Your task to perform on an android device: Go to Reddit.com Image 0: 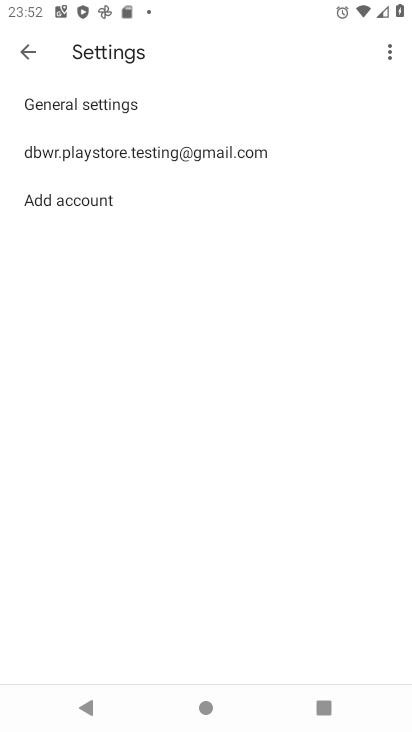
Step 0: press home button
Your task to perform on an android device: Go to Reddit.com Image 1: 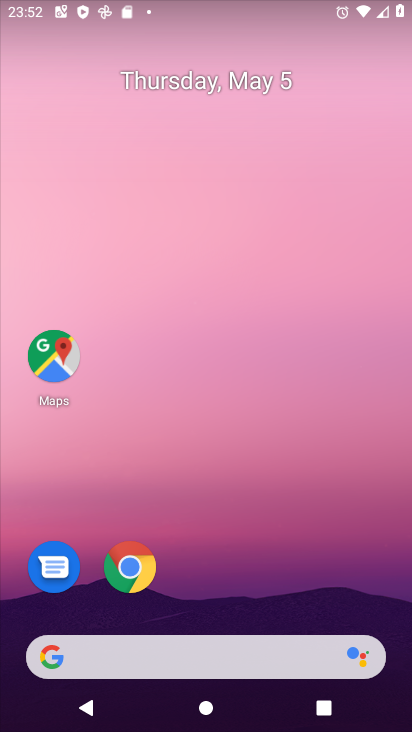
Step 1: click (142, 570)
Your task to perform on an android device: Go to Reddit.com Image 2: 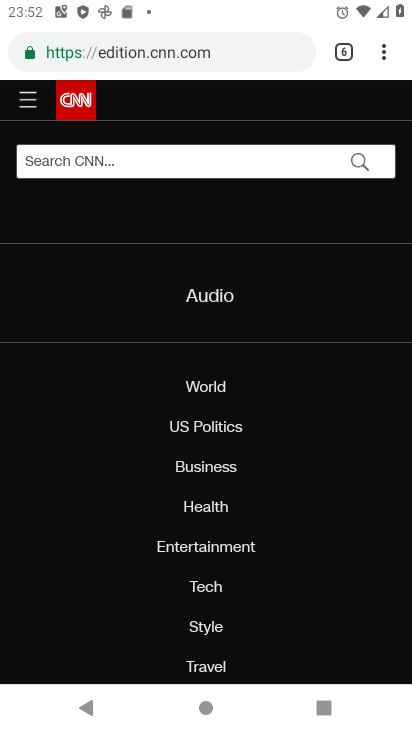
Step 2: click (347, 51)
Your task to perform on an android device: Go to Reddit.com Image 3: 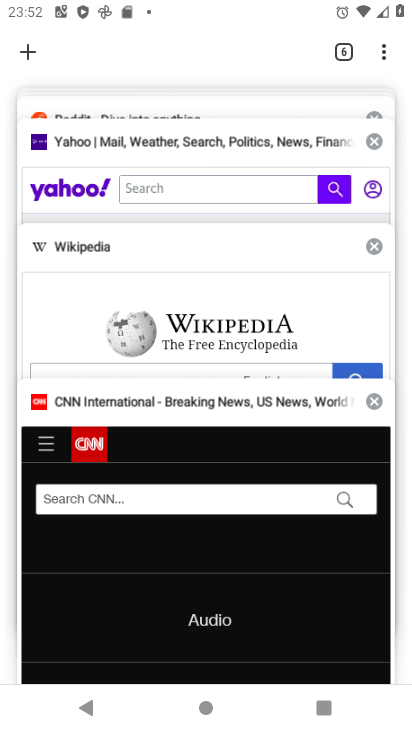
Step 3: click (33, 52)
Your task to perform on an android device: Go to Reddit.com Image 4: 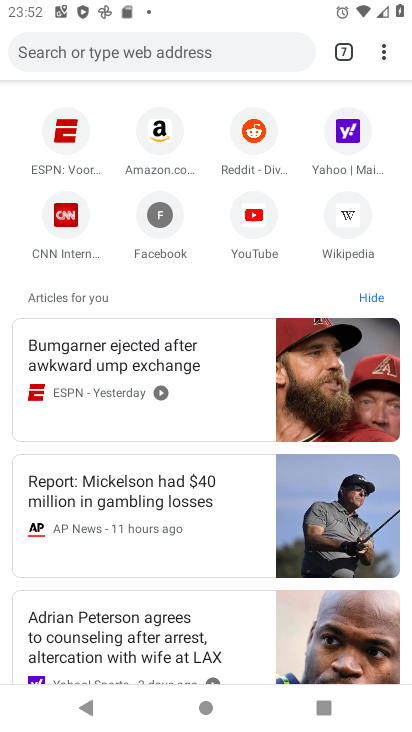
Step 4: click (227, 41)
Your task to perform on an android device: Go to Reddit.com Image 5: 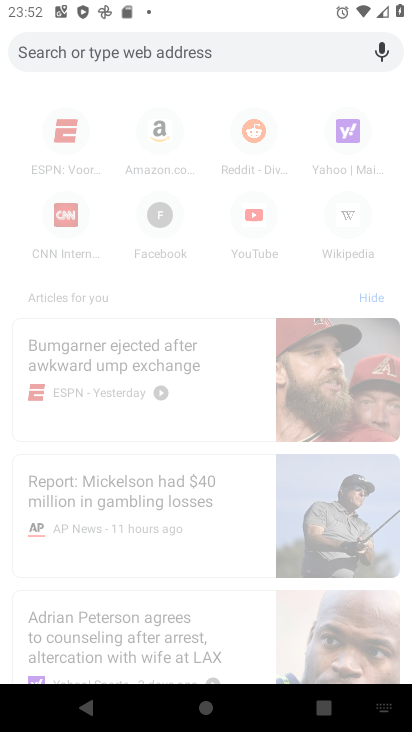
Step 5: type "Reddit.com"
Your task to perform on an android device: Go to Reddit.com Image 6: 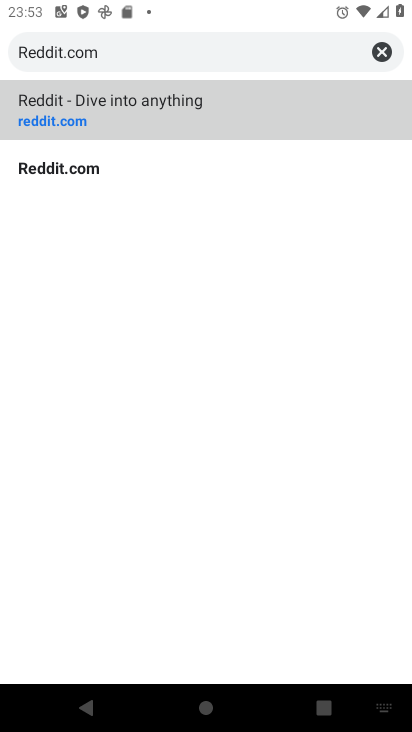
Step 6: click (106, 173)
Your task to perform on an android device: Go to Reddit.com Image 7: 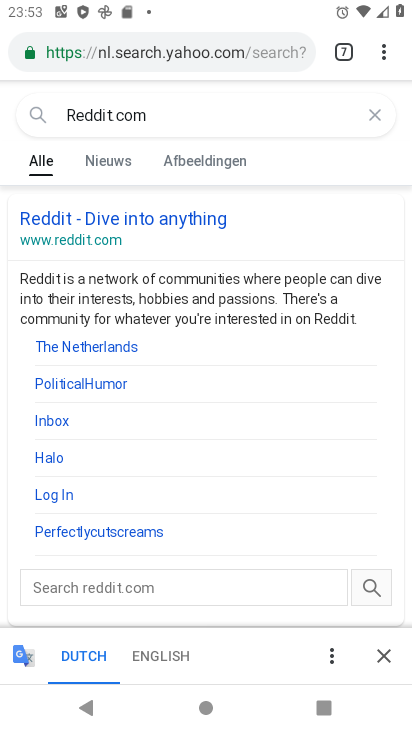
Step 7: click (113, 221)
Your task to perform on an android device: Go to Reddit.com Image 8: 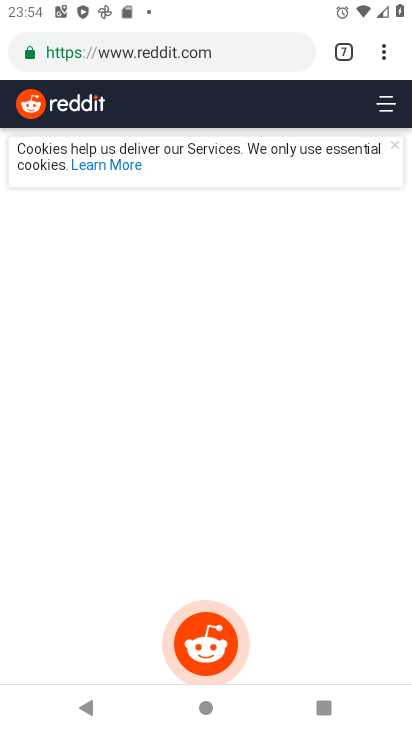
Step 8: task complete